Your task to perform on an android device: Open network settings Image 0: 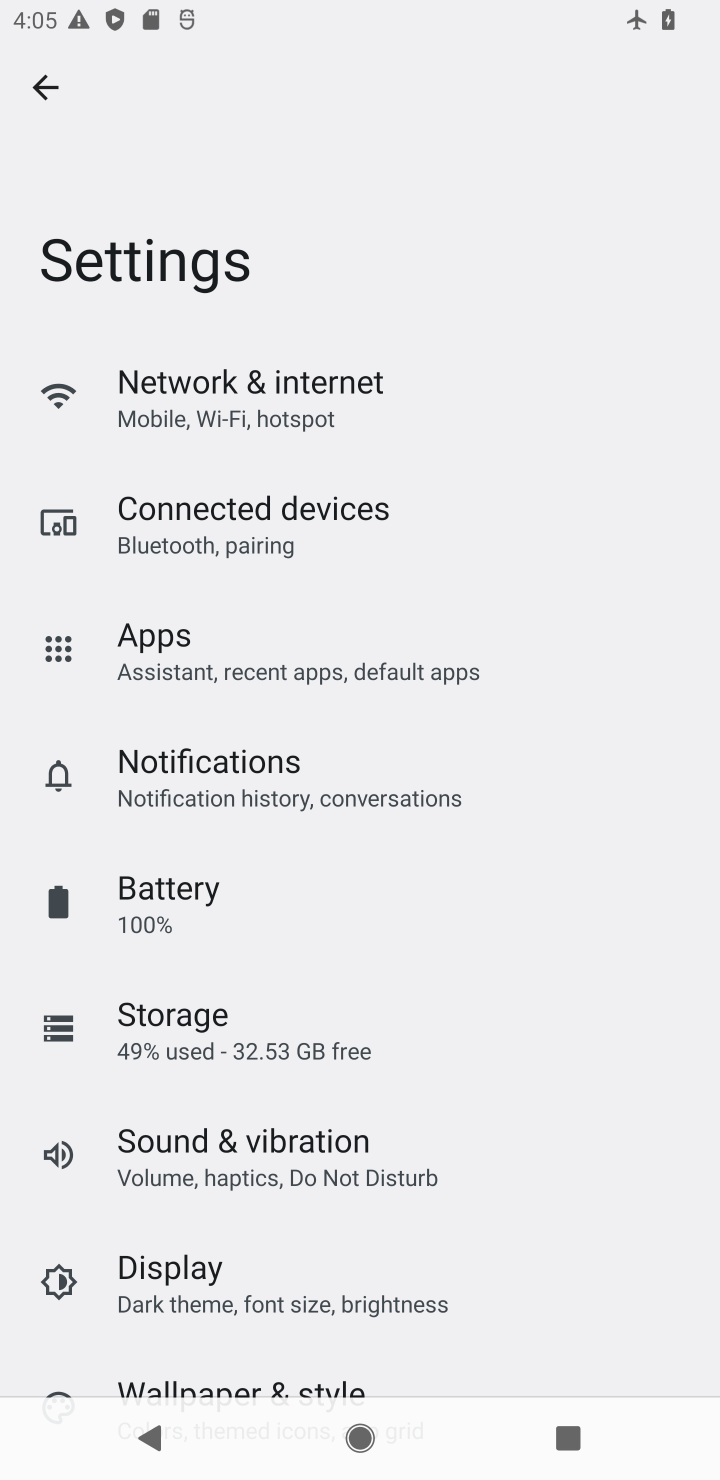
Step 0: click (319, 407)
Your task to perform on an android device: Open network settings Image 1: 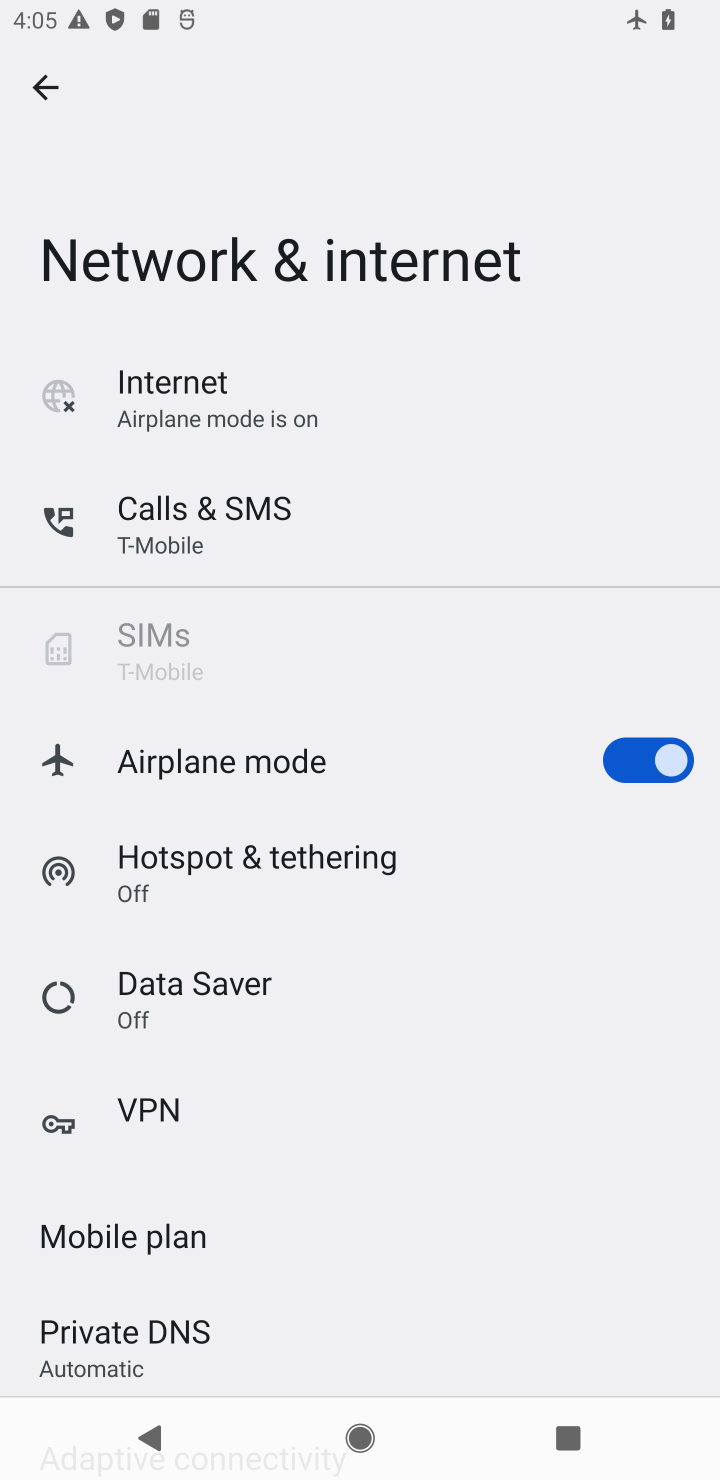
Step 1: task complete